Your task to perform on an android device: Open display settings Image 0: 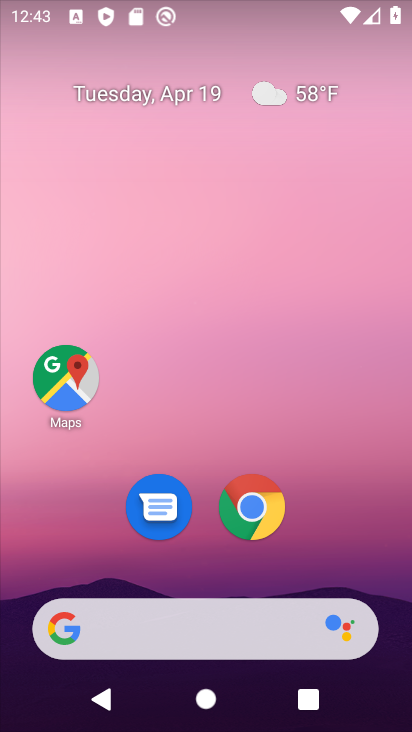
Step 0: drag from (212, 552) to (204, 62)
Your task to perform on an android device: Open display settings Image 1: 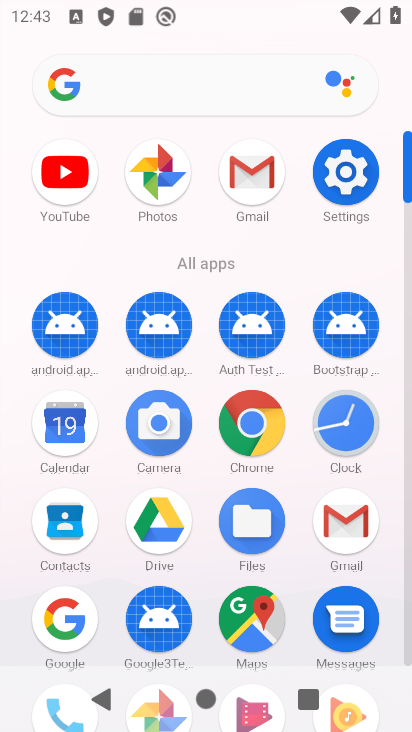
Step 1: click (345, 175)
Your task to perform on an android device: Open display settings Image 2: 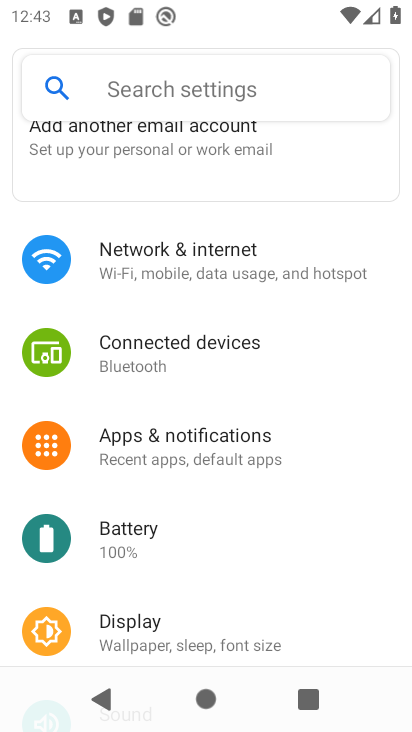
Step 2: click (205, 626)
Your task to perform on an android device: Open display settings Image 3: 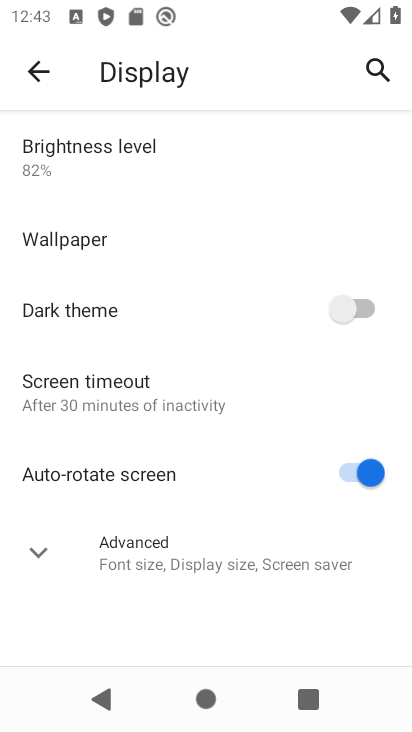
Step 3: task complete